Your task to perform on an android device: set an alarm Image 0: 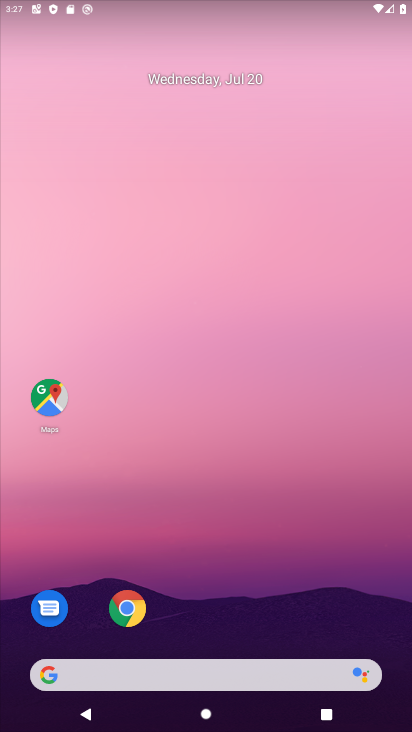
Step 0: drag from (288, 611) to (243, 316)
Your task to perform on an android device: set an alarm Image 1: 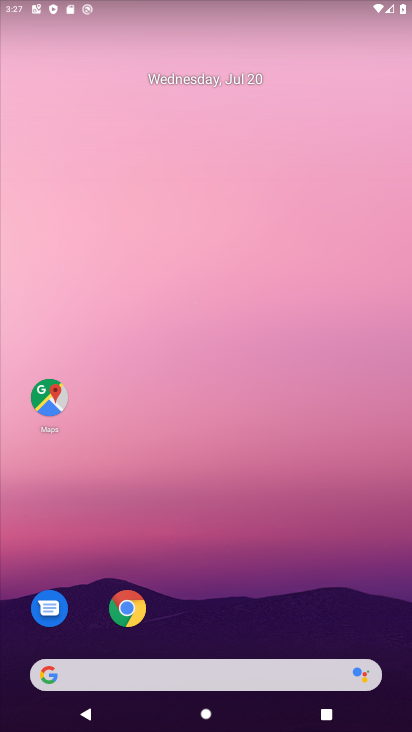
Step 1: drag from (273, 631) to (274, 240)
Your task to perform on an android device: set an alarm Image 2: 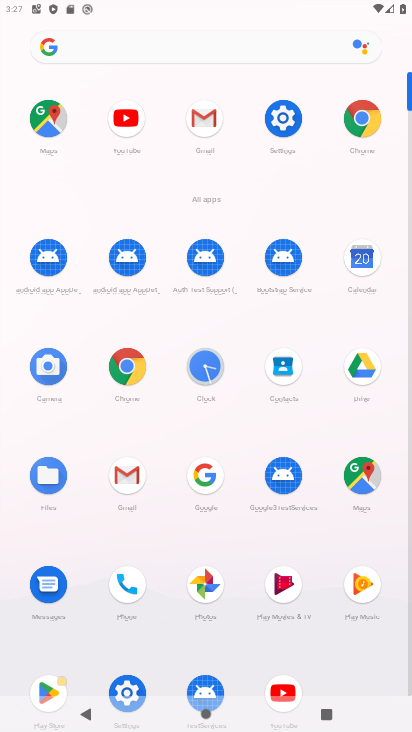
Step 2: click (212, 356)
Your task to perform on an android device: set an alarm Image 3: 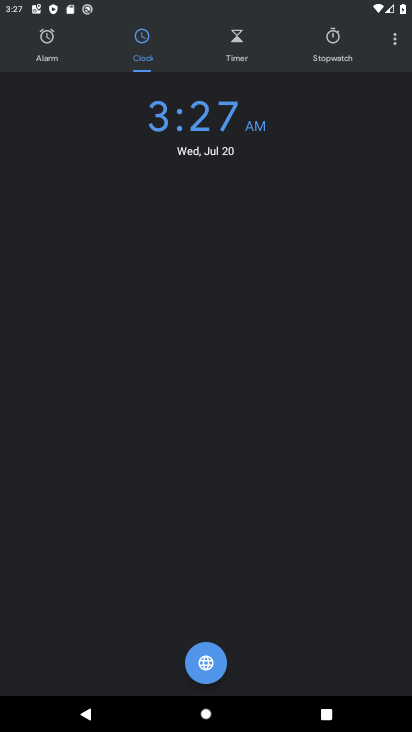
Step 3: task complete